Your task to perform on an android device: turn off location history Image 0: 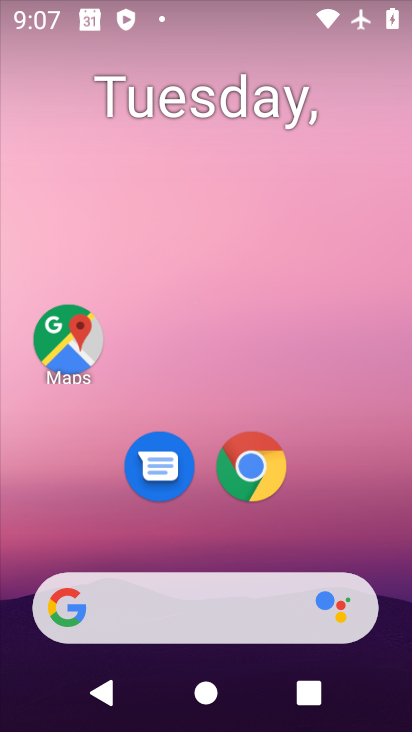
Step 0: drag from (329, 452) to (223, 31)
Your task to perform on an android device: turn off location history Image 1: 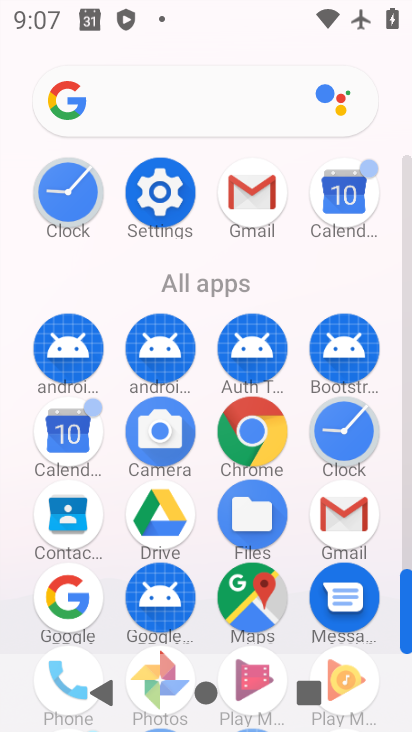
Step 1: click (163, 187)
Your task to perform on an android device: turn off location history Image 2: 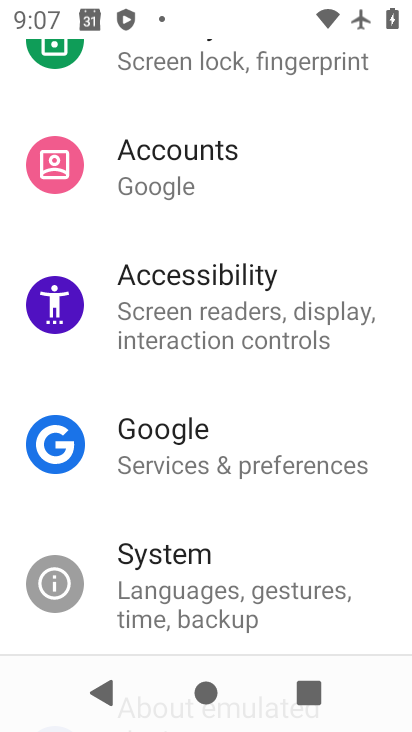
Step 2: drag from (218, 627) to (288, 103)
Your task to perform on an android device: turn off location history Image 3: 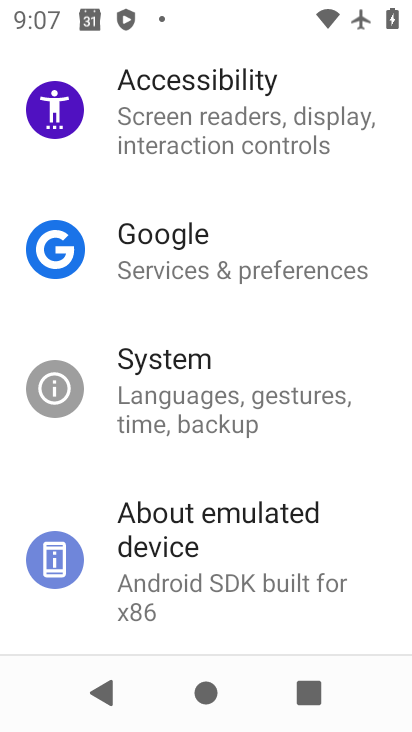
Step 3: drag from (248, 173) to (258, 522)
Your task to perform on an android device: turn off location history Image 4: 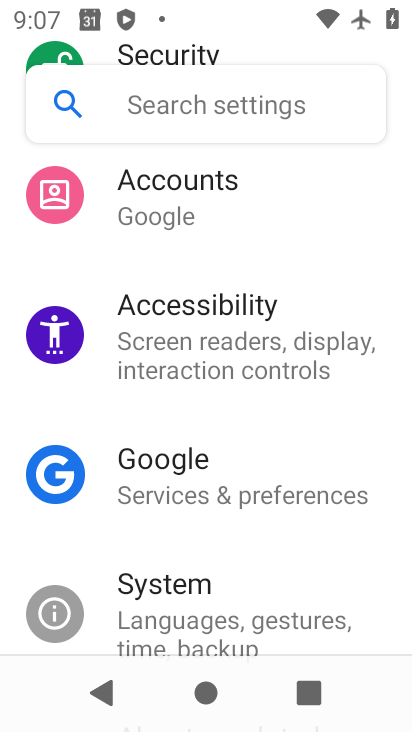
Step 4: drag from (292, 197) to (217, 554)
Your task to perform on an android device: turn off location history Image 5: 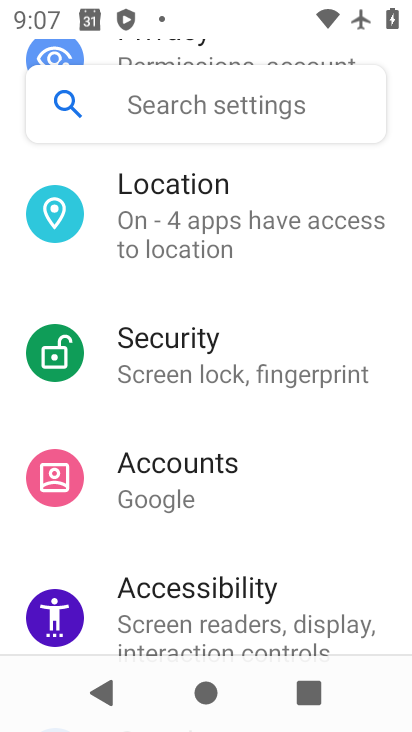
Step 5: click (231, 215)
Your task to perform on an android device: turn off location history Image 6: 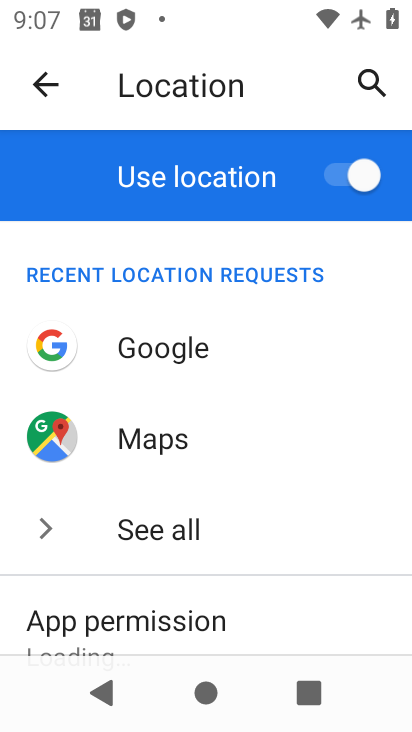
Step 6: drag from (311, 597) to (285, 160)
Your task to perform on an android device: turn off location history Image 7: 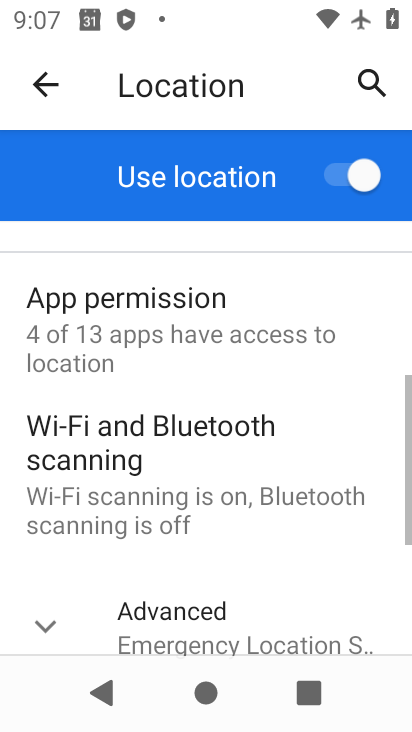
Step 7: click (188, 649)
Your task to perform on an android device: turn off location history Image 8: 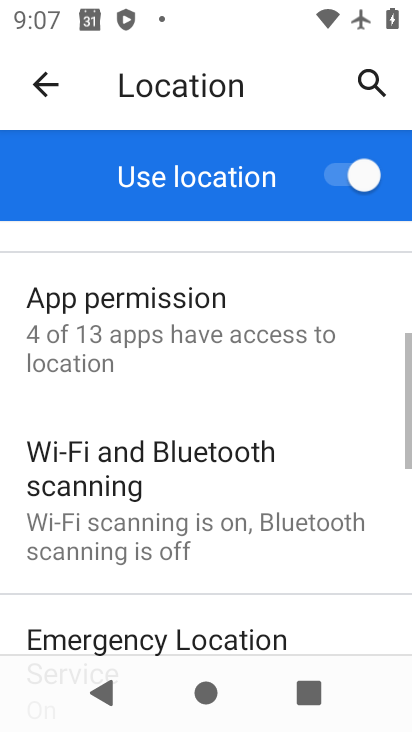
Step 8: drag from (285, 585) to (329, 152)
Your task to perform on an android device: turn off location history Image 9: 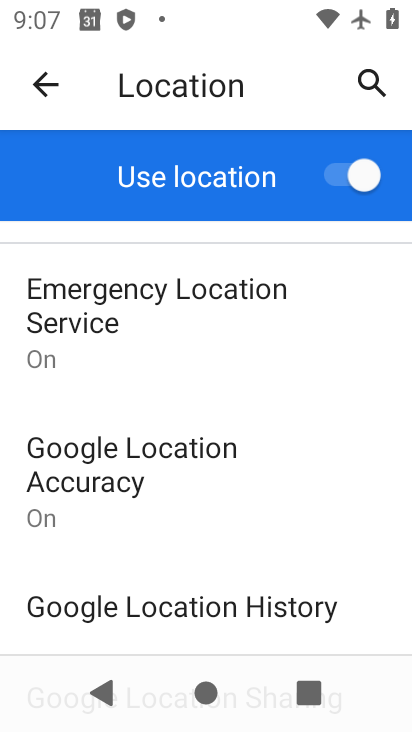
Step 9: click (214, 607)
Your task to perform on an android device: turn off location history Image 10: 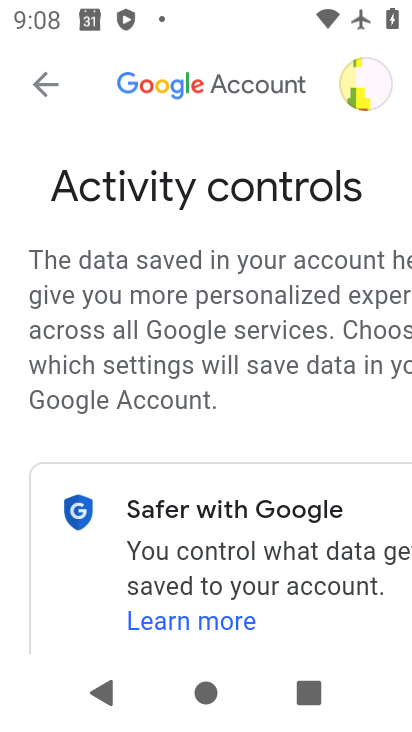
Step 10: task complete